Your task to perform on an android device: check android version Image 0: 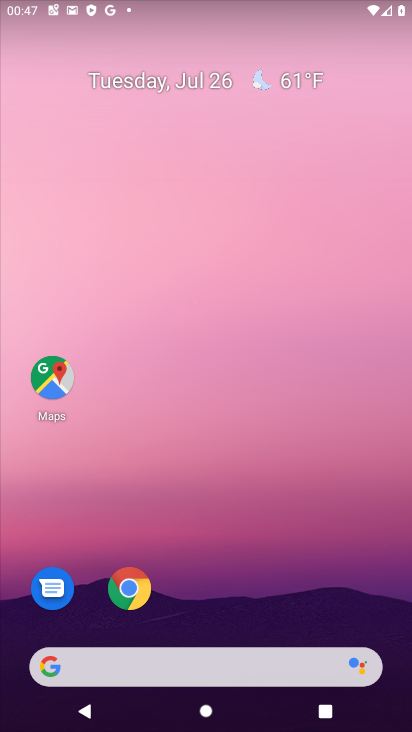
Step 0: drag from (229, 622) to (234, 26)
Your task to perform on an android device: check android version Image 1: 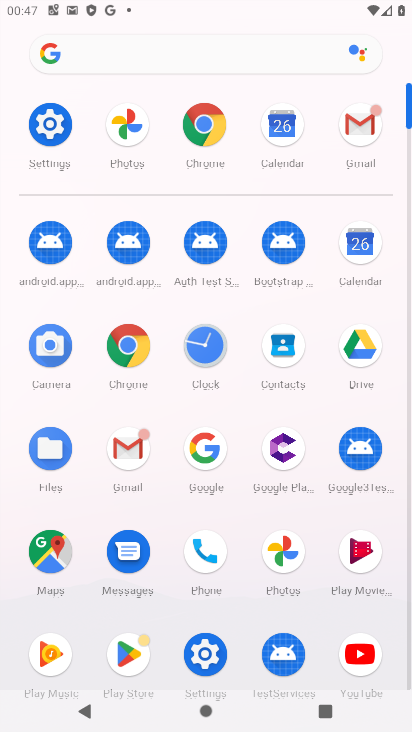
Step 1: click (45, 119)
Your task to perform on an android device: check android version Image 2: 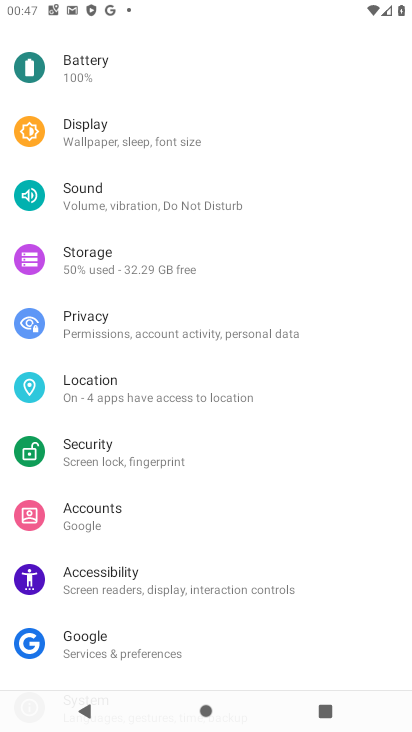
Step 2: drag from (188, 634) to (236, 2)
Your task to perform on an android device: check android version Image 3: 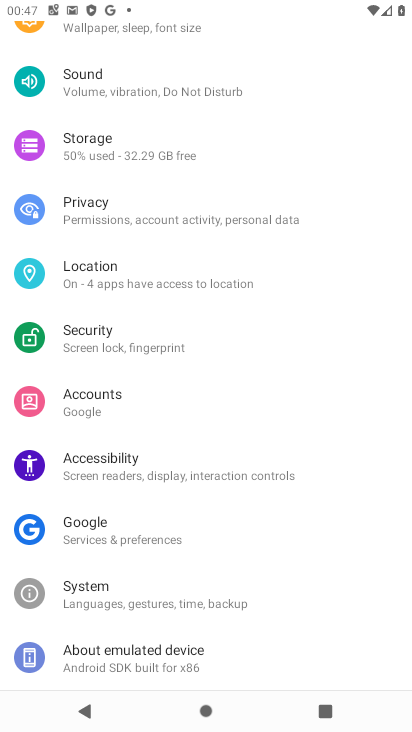
Step 3: click (202, 660)
Your task to perform on an android device: check android version Image 4: 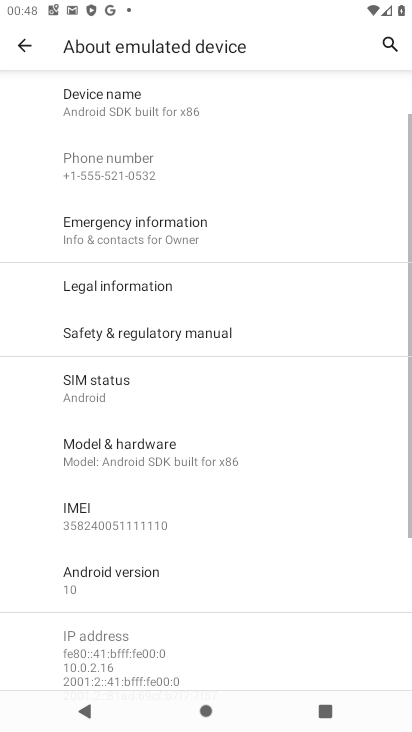
Step 4: click (139, 572)
Your task to perform on an android device: check android version Image 5: 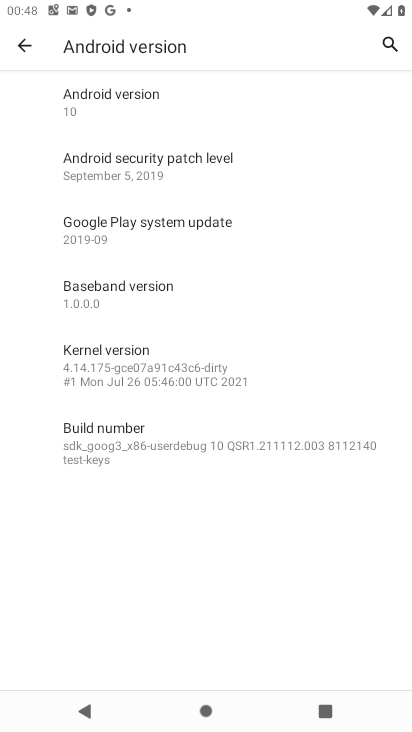
Step 5: task complete